Your task to perform on an android device: View the shopping cart on ebay. Image 0: 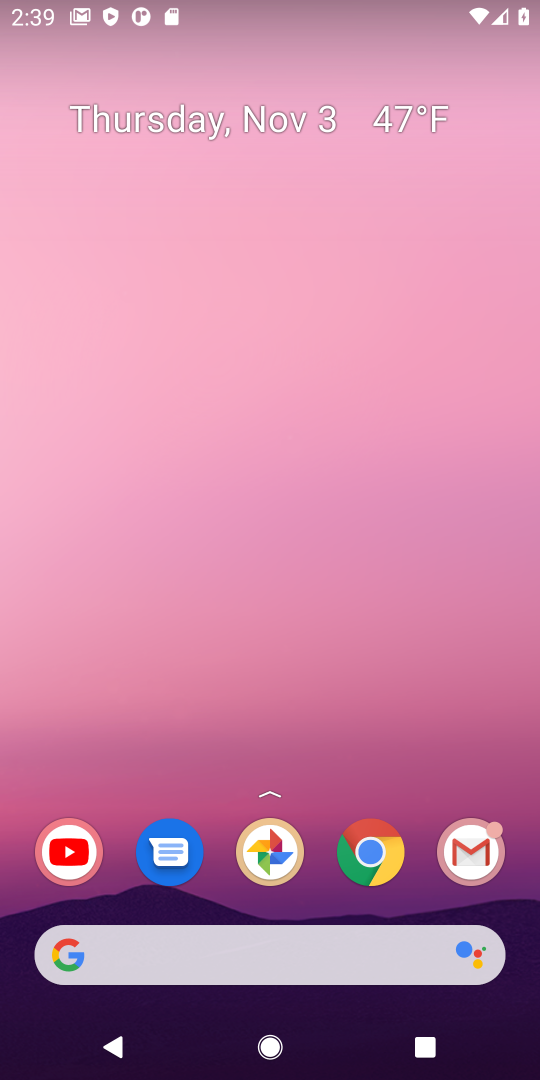
Step 0: click (378, 853)
Your task to perform on an android device: View the shopping cart on ebay. Image 1: 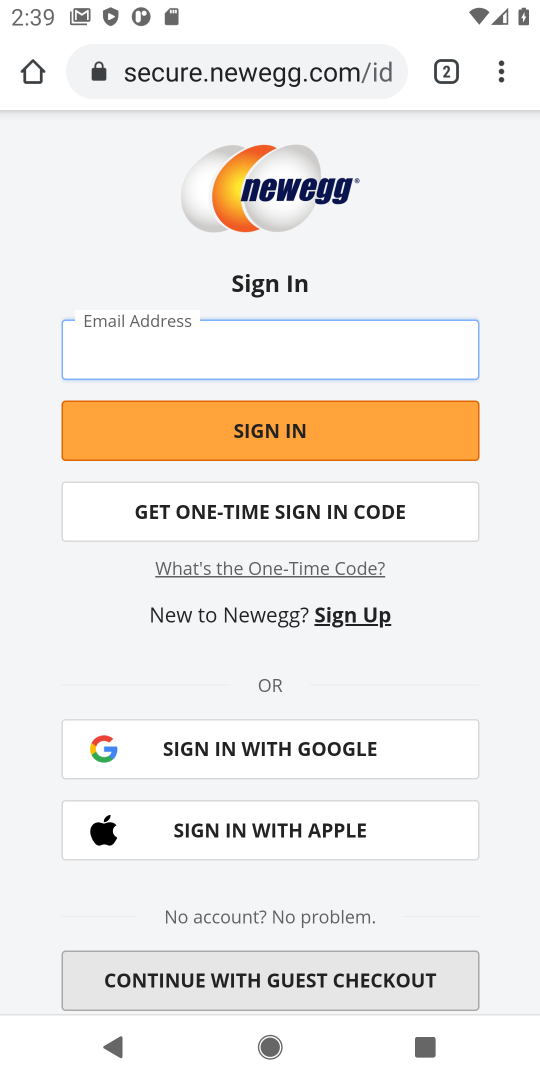
Step 1: click (277, 82)
Your task to perform on an android device: View the shopping cart on ebay. Image 2: 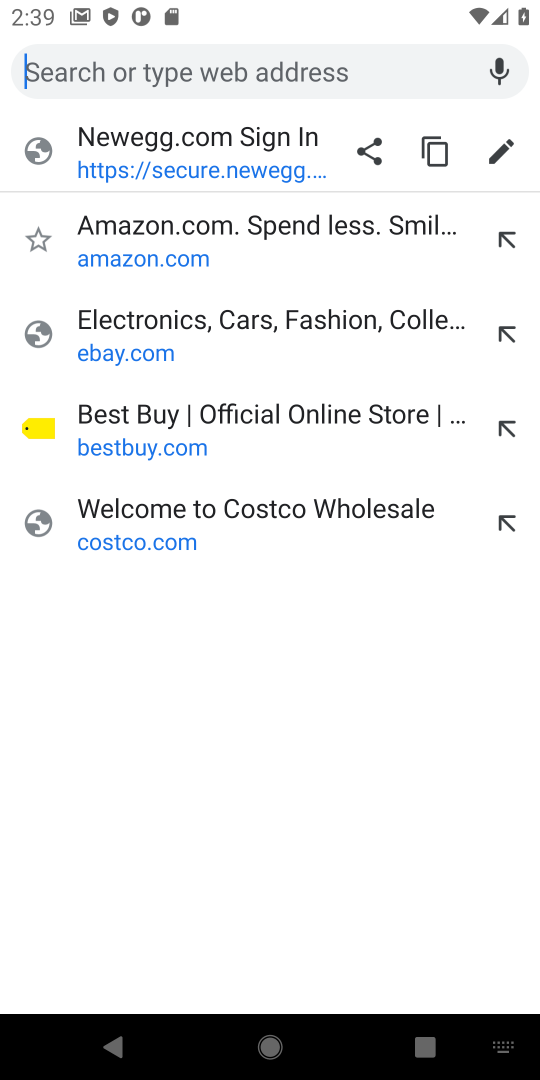
Step 2: click (120, 363)
Your task to perform on an android device: View the shopping cart on ebay. Image 3: 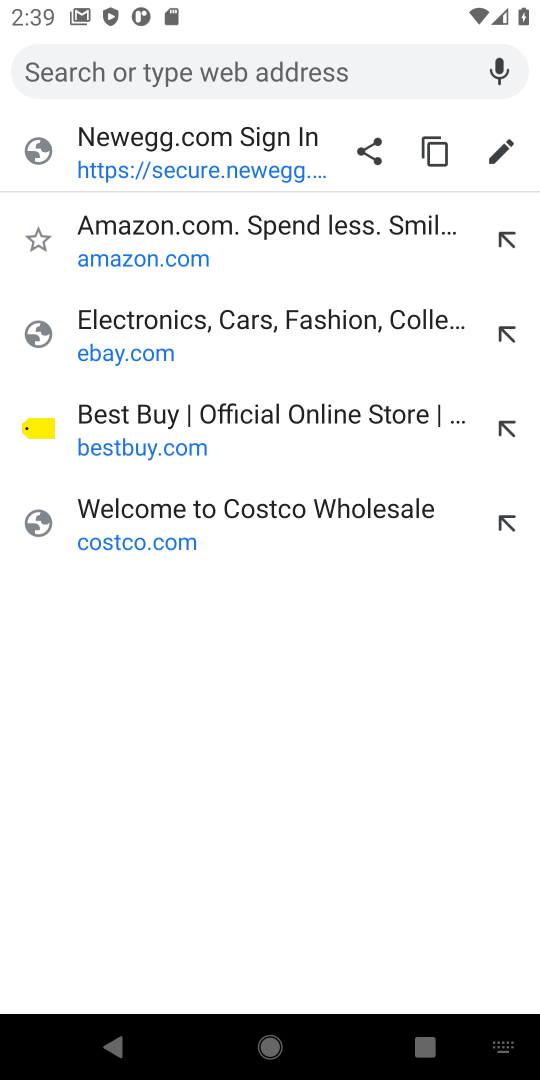
Step 3: click (121, 348)
Your task to perform on an android device: View the shopping cart on ebay. Image 4: 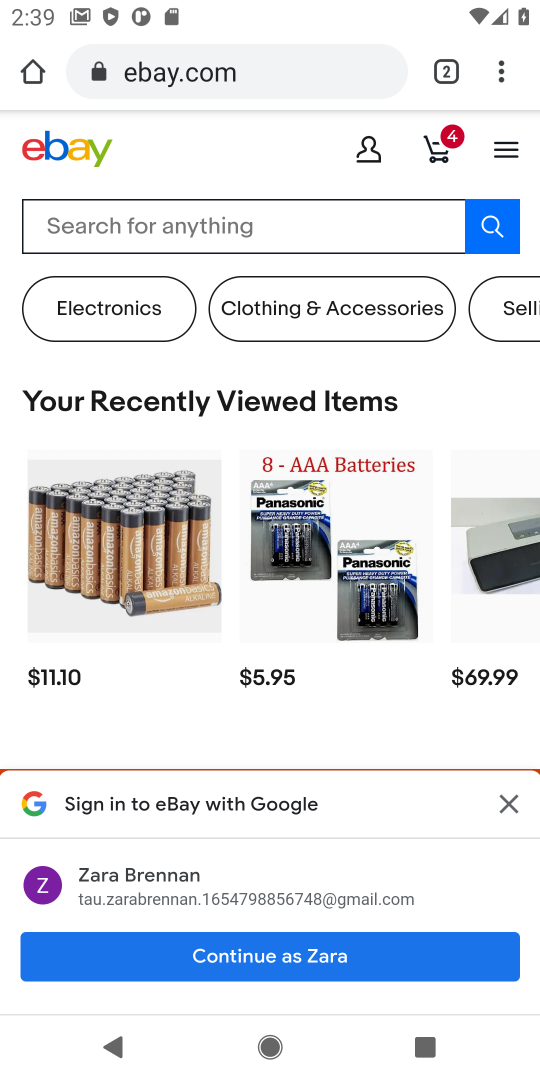
Step 4: click (440, 155)
Your task to perform on an android device: View the shopping cart on ebay. Image 5: 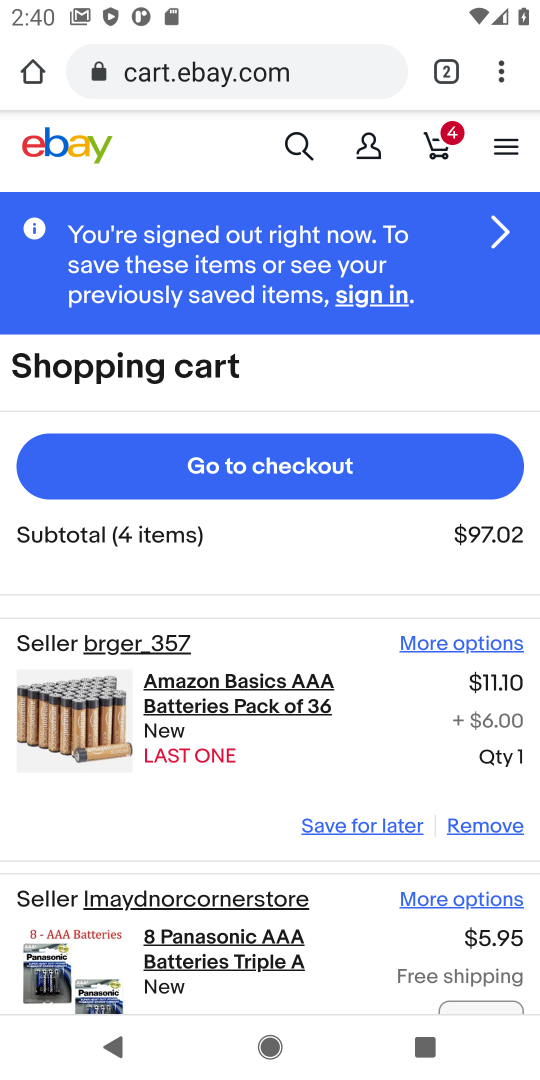
Step 5: task complete